Your task to perform on an android device: clear history in the chrome app Image 0: 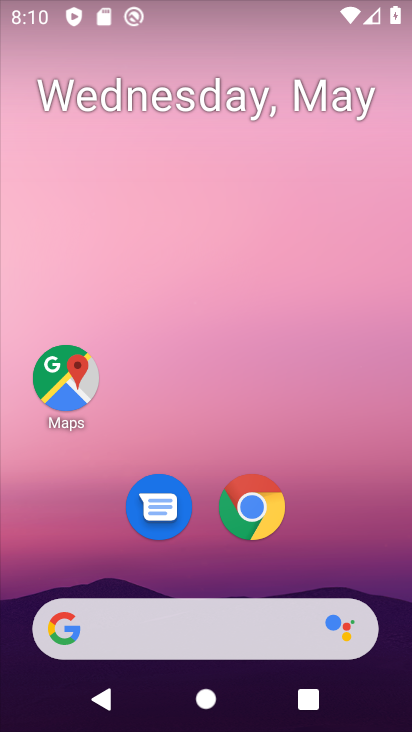
Step 0: click (266, 503)
Your task to perform on an android device: clear history in the chrome app Image 1: 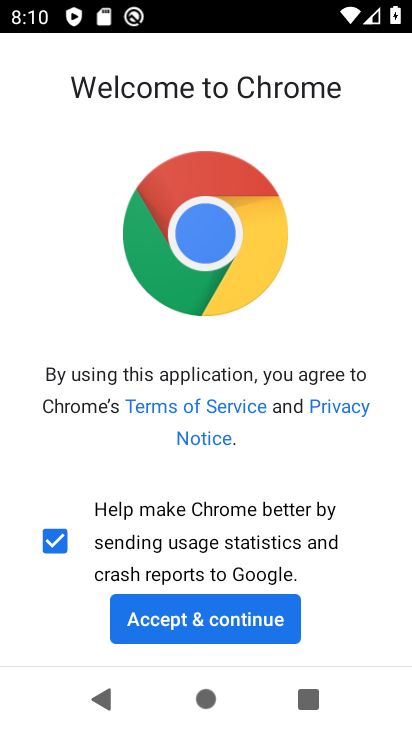
Step 1: click (194, 618)
Your task to perform on an android device: clear history in the chrome app Image 2: 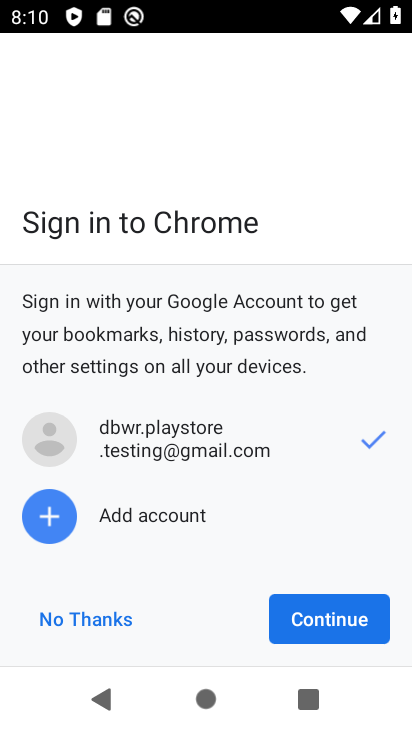
Step 2: click (331, 638)
Your task to perform on an android device: clear history in the chrome app Image 3: 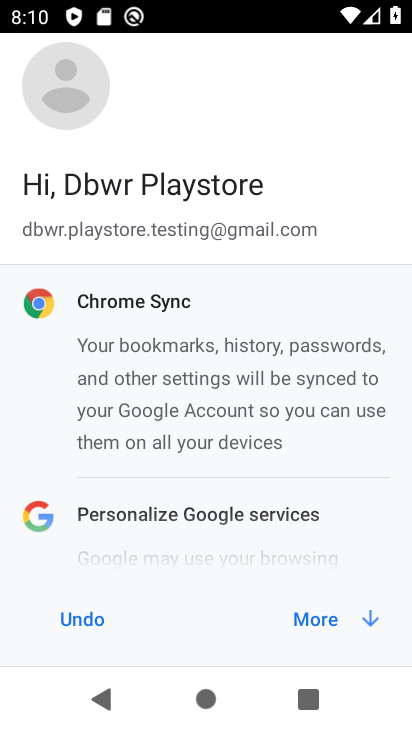
Step 3: click (326, 614)
Your task to perform on an android device: clear history in the chrome app Image 4: 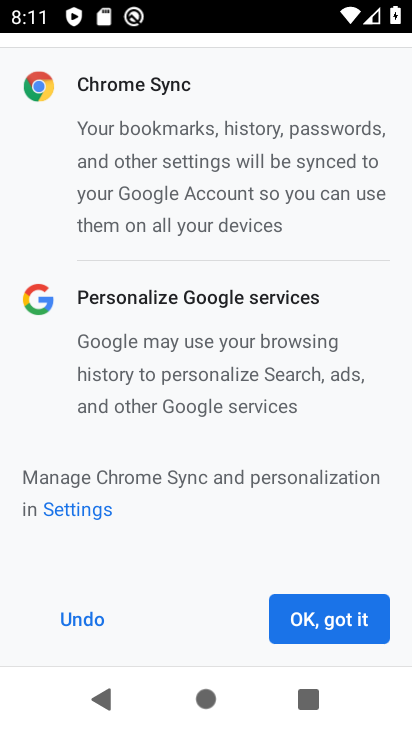
Step 4: click (326, 614)
Your task to perform on an android device: clear history in the chrome app Image 5: 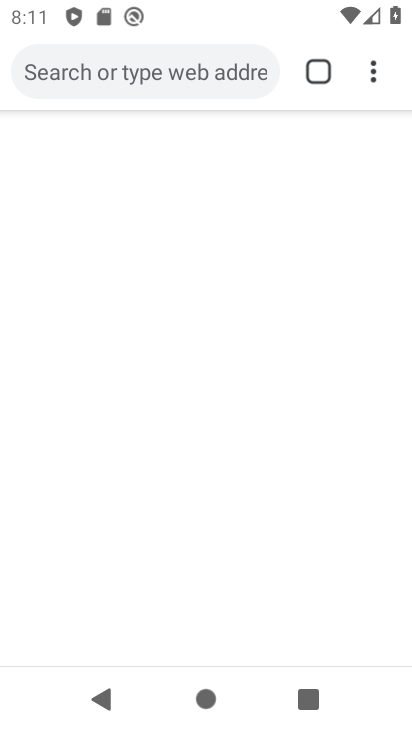
Step 5: click (376, 70)
Your task to perform on an android device: clear history in the chrome app Image 6: 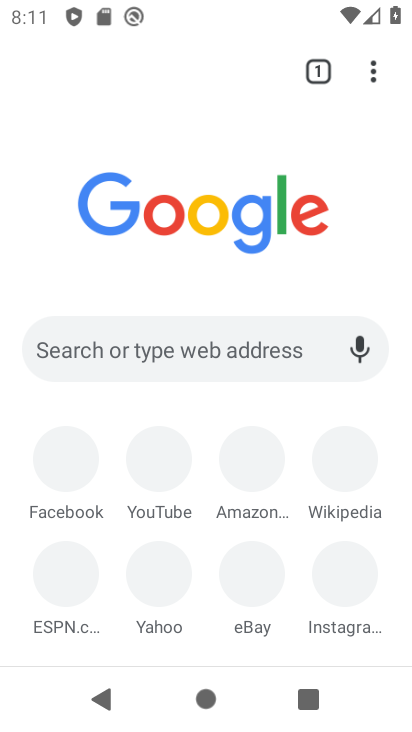
Step 6: click (369, 73)
Your task to perform on an android device: clear history in the chrome app Image 7: 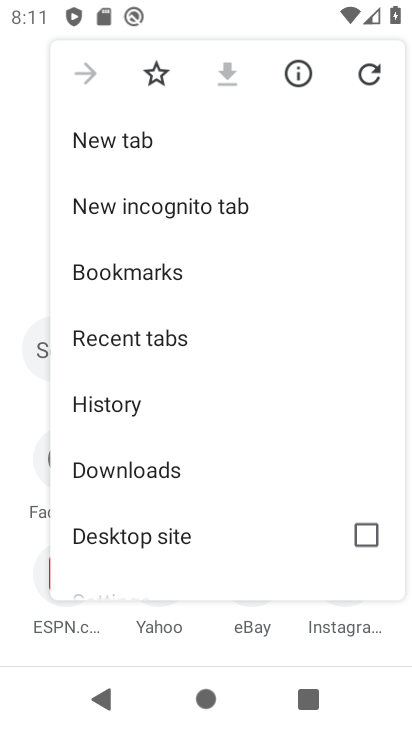
Step 7: click (151, 411)
Your task to perform on an android device: clear history in the chrome app Image 8: 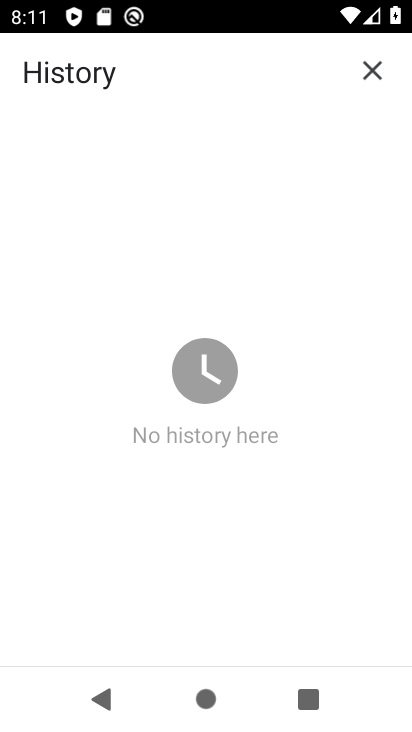
Step 8: task complete